Your task to perform on an android device: set the timer Image 0: 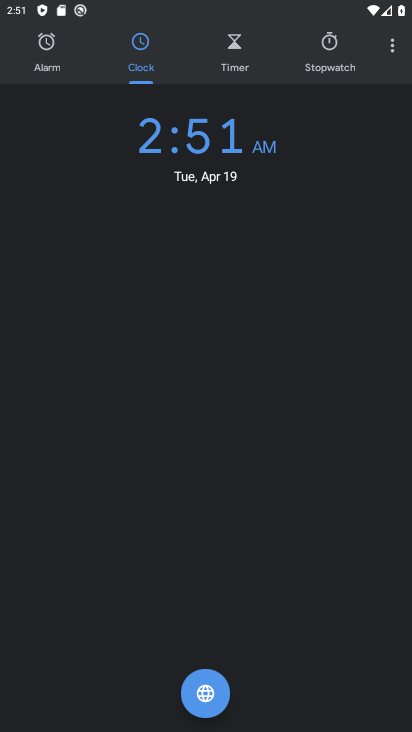
Step 0: press home button
Your task to perform on an android device: set the timer Image 1: 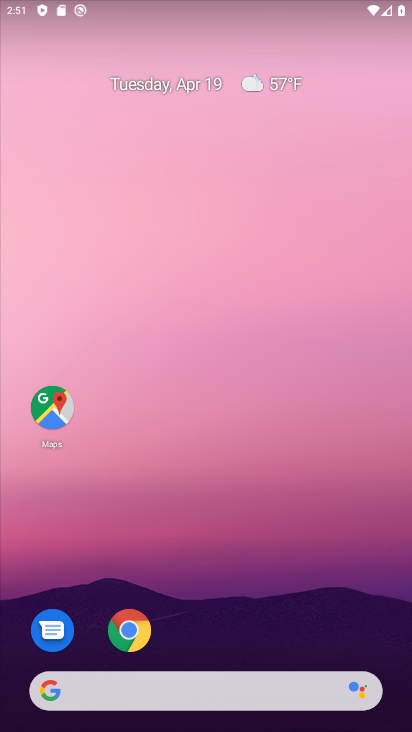
Step 1: drag from (211, 628) to (206, 146)
Your task to perform on an android device: set the timer Image 2: 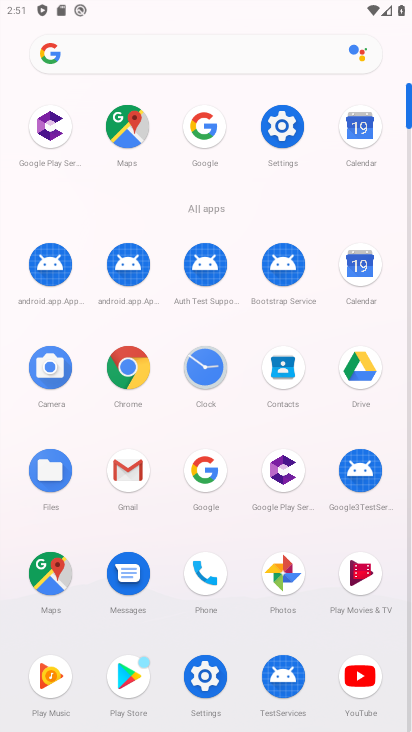
Step 2: click (218, 372)
Your task to perform on an android device: set the timer Image 3: 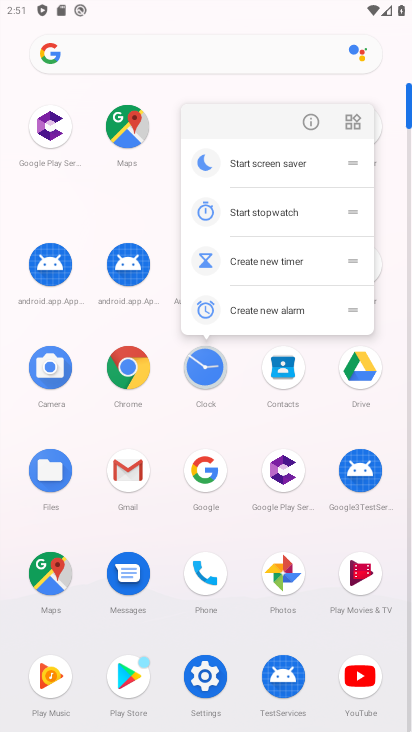
Step 3: click (189, 371)
Your task to perform on an android device: set the timer Image 4: 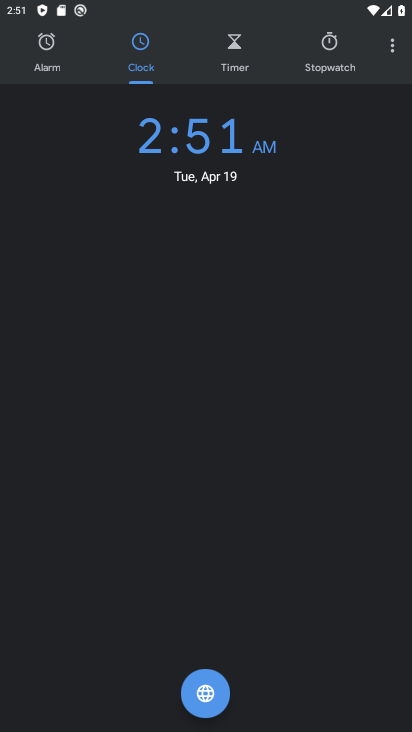
Step 4: click (241, 50)
Your task to perform on an android device: set the timer Image 5: 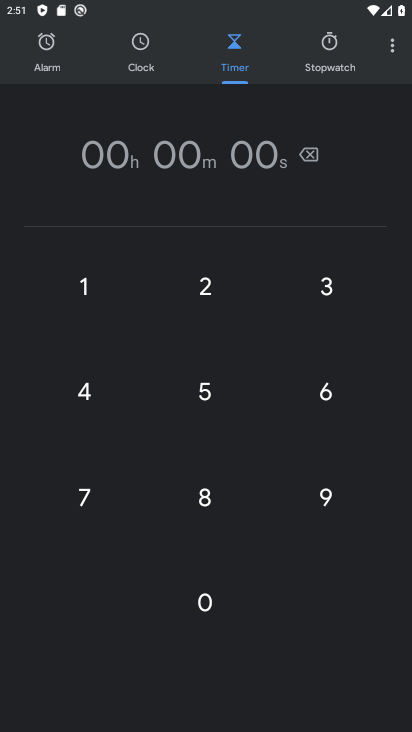
Step 5: click (263, 150)
Your task to perform on an android device: set the timer Image 6: 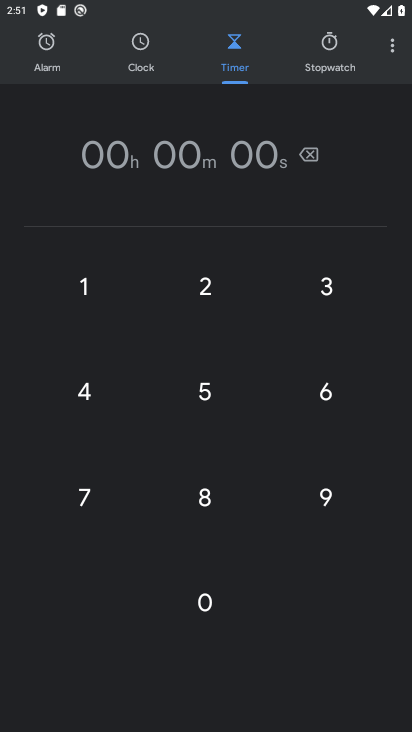
Step 6: click (257, 157)
Your task to perform on an android device: set the timer Image 7: 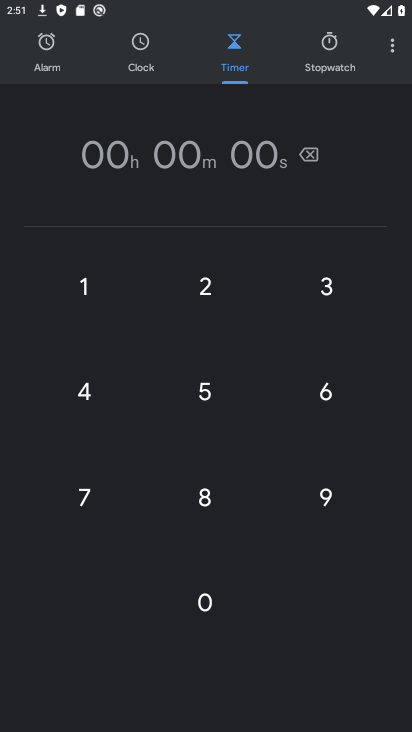
Step 7: click (250, 156)
Your task to perform on an android device: set the timer Image 8: 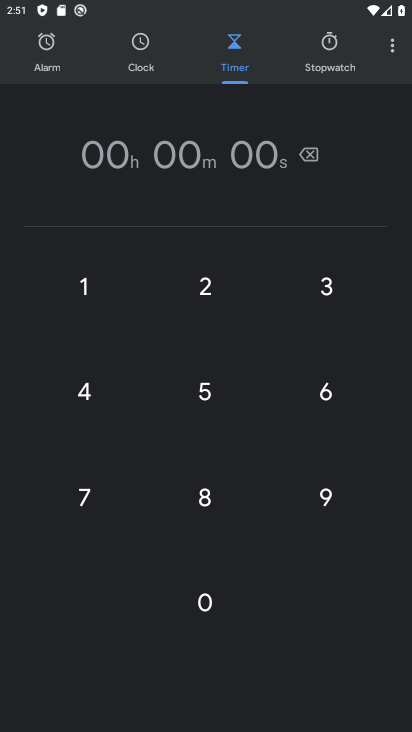
Step 8: type "65"
Your task to perform on an android device: set the timer Image 9: 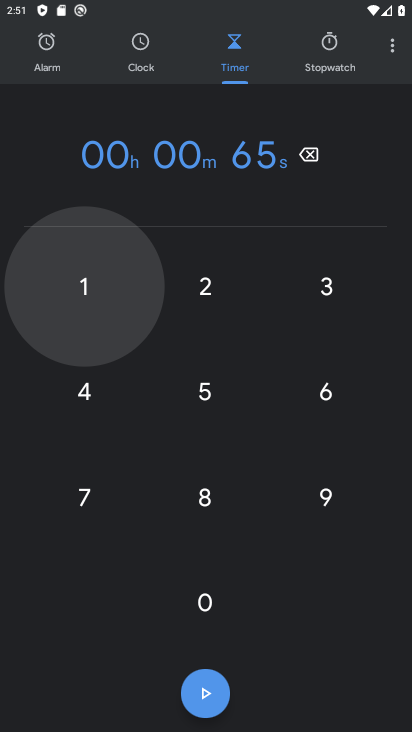
Step 9: click (210, 689)
Your task to perform on an android device: set the timer Image 10: 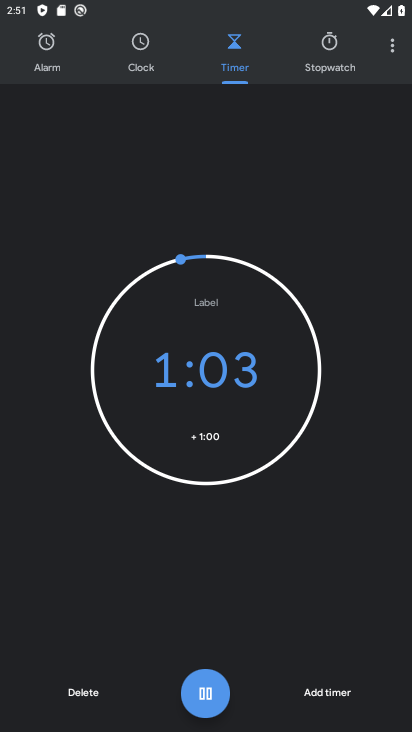
Step 10: task complete